Your task to perform on an android device: read, delete, or share a saved page in the chrome app Image 0: 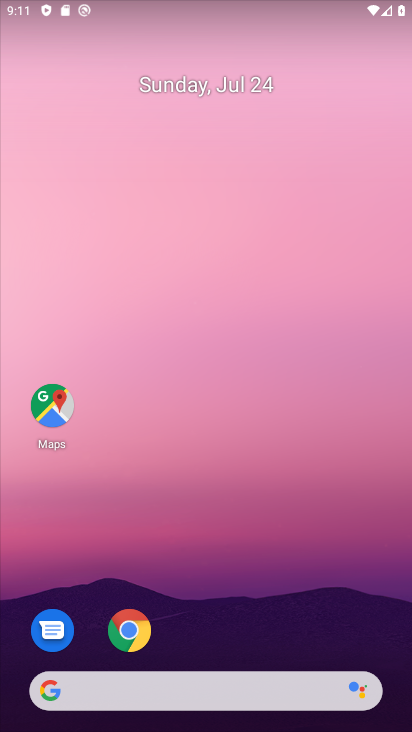
Step 0: click (132, 643)
Your task to perform on an android device: read, delete, or share a saved page in the chrome app Image 1: 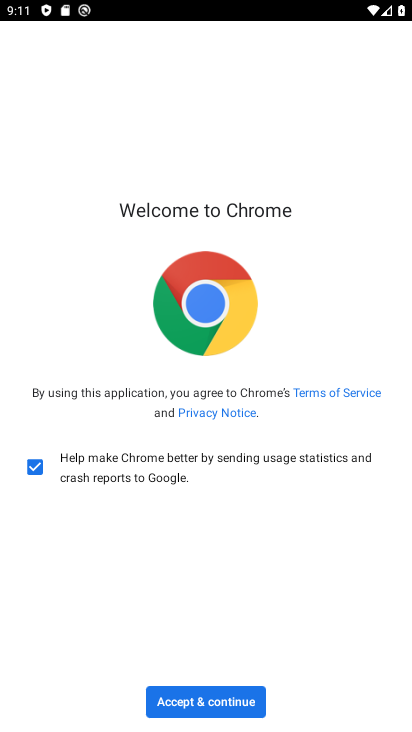
Step 1: click (164, 701)
Your task to perform on an android device: read, delete, or share a saved page in the chrome app Image 2: 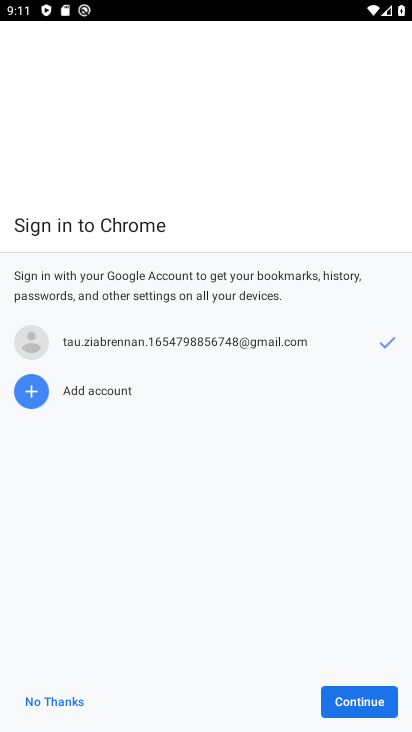
Step 2: click (335, 693)
Your task to perform on an android device: read, delete, or share a saved page in the chrome app Image 3: 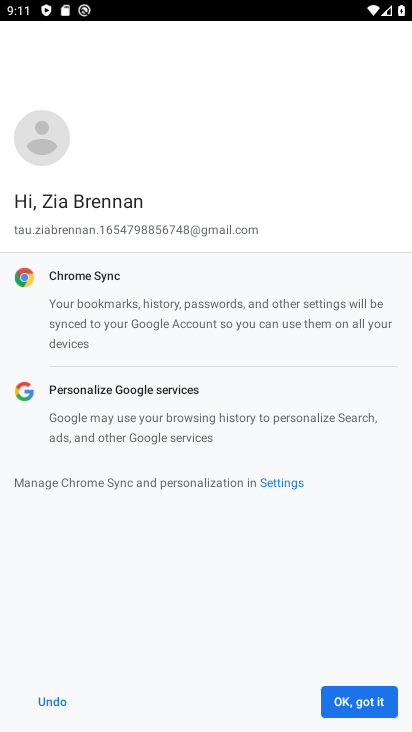
Step 3: click (335, 693)
Your task to perform on an android device: read, delete, or share a saved page in the chrome app Image 4: 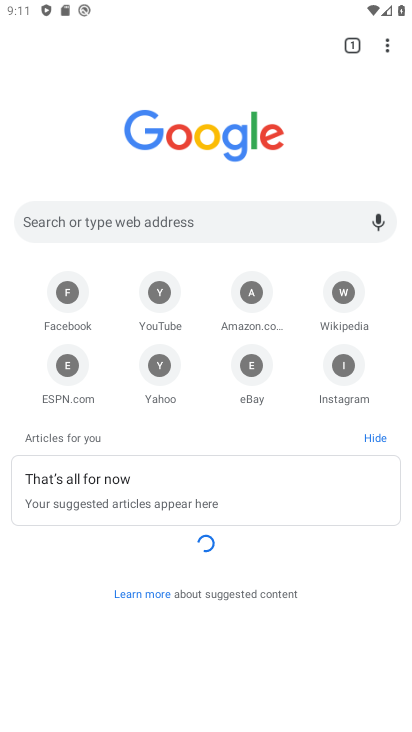
Step 4: click (388, 50)
Your task to perform on an android device: read, delete, or share a saved page in the chrome app Image 5: 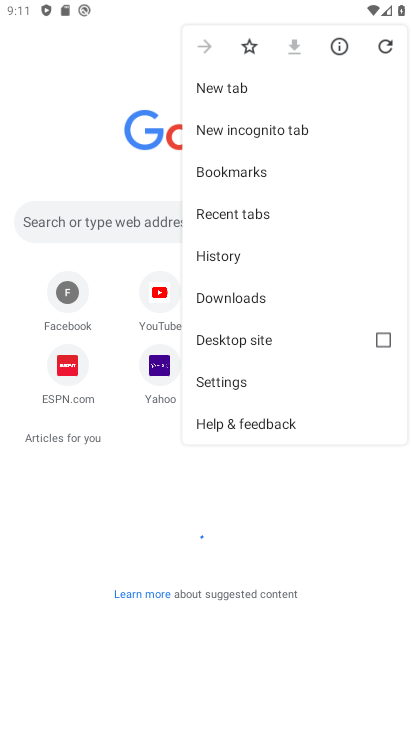
Step 5: click (232, 300)
Your task to perform on an android device: read, delete, or share a saved page in the chrome app Image 6: 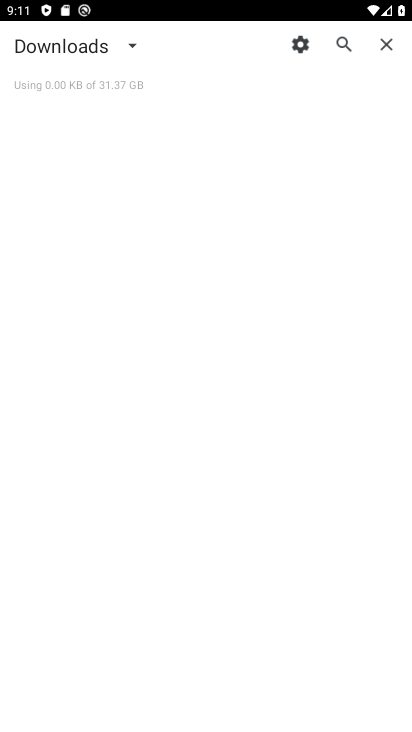
Step 6: click (130, 50)
Your task to perform on an android device: read, delete, or share a saved page in the chrome app Image 7: 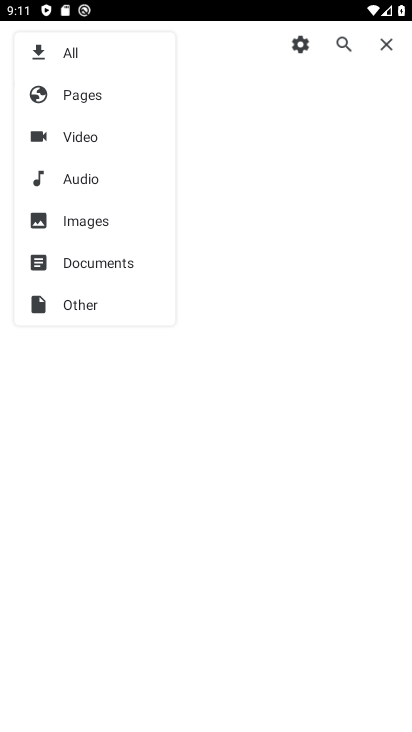
Step 7: click (100, 91)
Your task to perform on an android device: read, delete, or share a saved page in the chrome app Image 8: 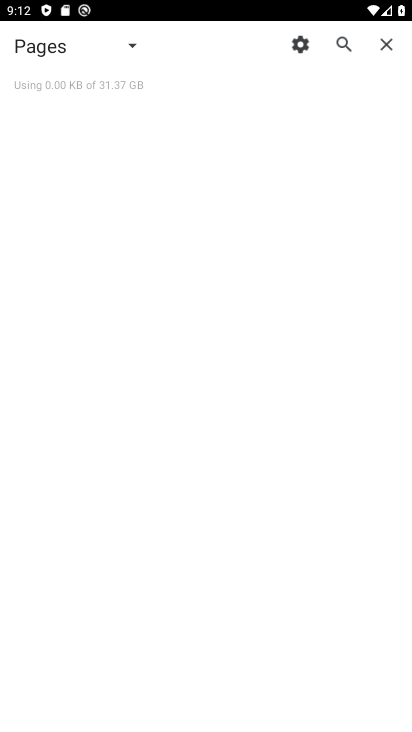
Step 8: task complete